Your task to perform on an android device: delete the emails in spam in the gmail app Image 0: 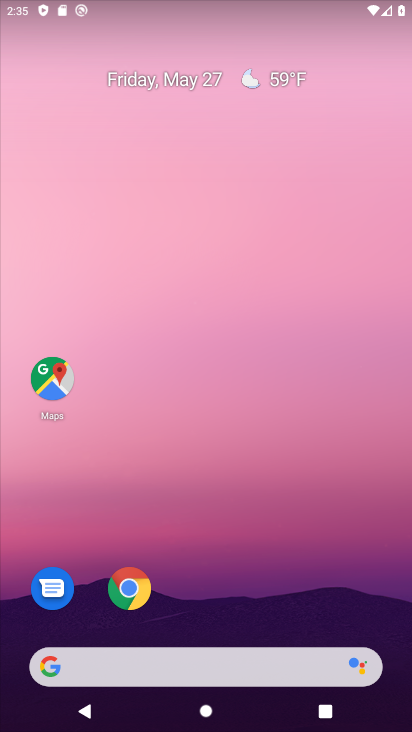
Step 0: drag from (255, 625) to (221, 491)
Your task to perform on an android device: delete the emails in spam in the gmail app Image 1: 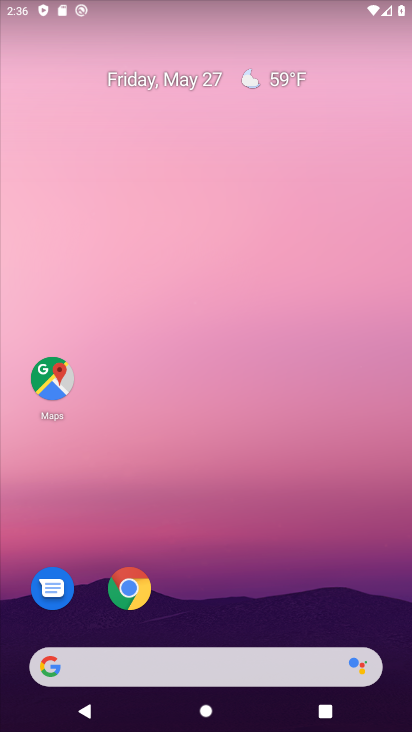
Step 1: drag from (306, 659) to (160, 256)
Your task to perform on an android device: delete the emails in spam in the gmail app Image 2: 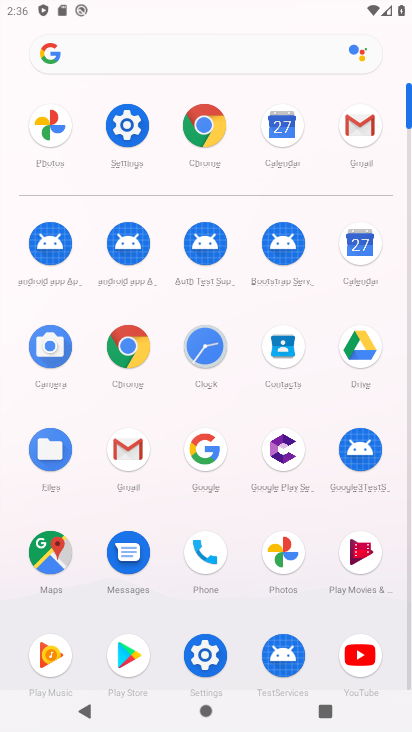
Step 2: click (126, 456)
Your task to perform on an android device: delete the emails in spam in the gmail app Image 3: 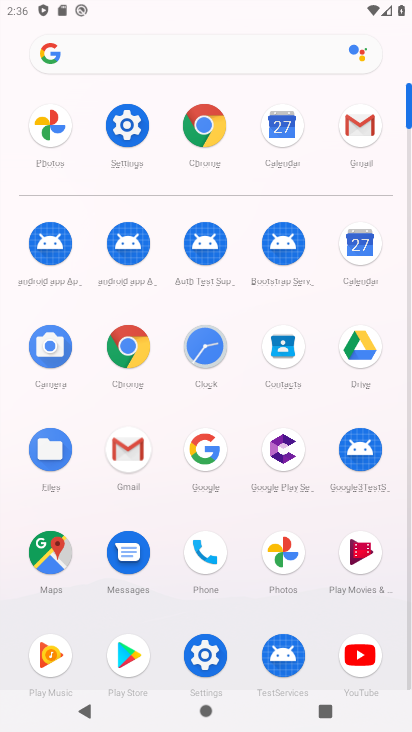
Step 3: click (127, 455)
Your task to perform on an android device: delete the emails in spam in the gmail app Image 4: 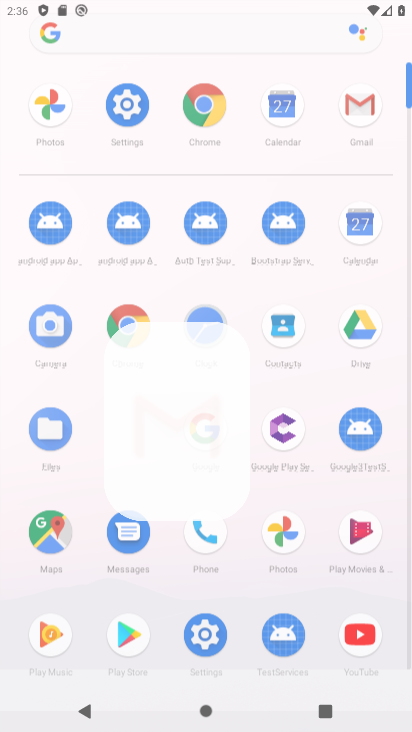
Step 4: click (127, 455)
Your task to perform on an android device: delete the emails in spam in the gmail app Image 5: 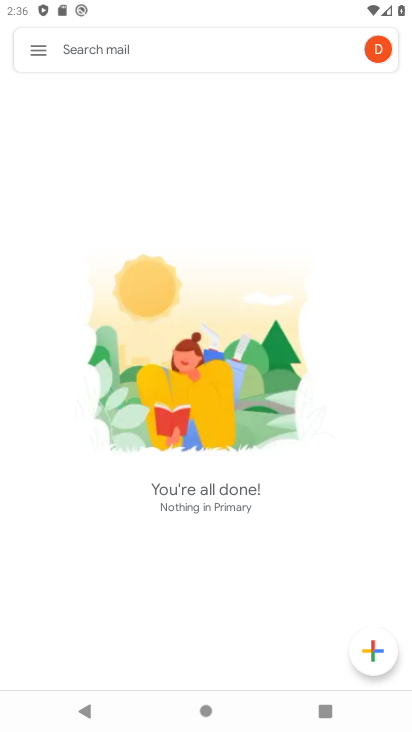
Step 5: click (140, 442)
Your task to perform on an android device: delete the emails in spam in the gmail app Image 6: 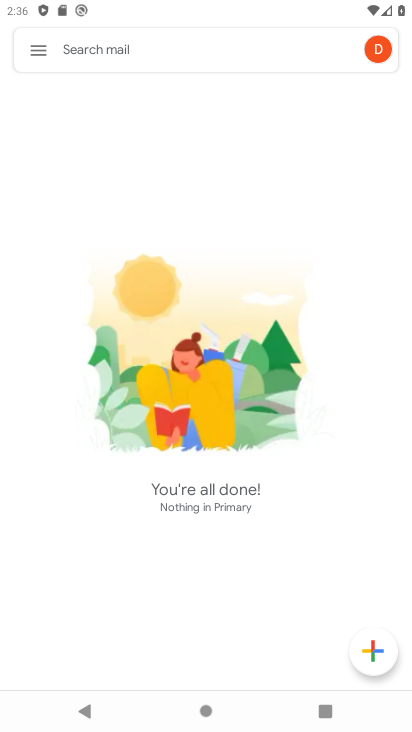
Step 6: click (32, 61)
Your task to perform on an android device: delete the emails in spam in the gmail app Image 7: 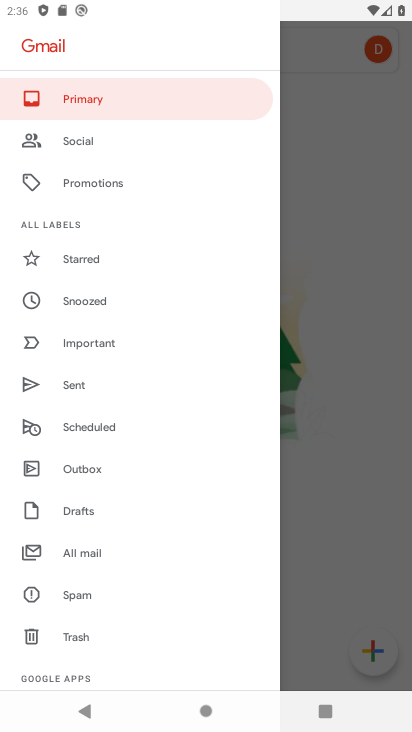
Step 7: drag from (74, 527) to (72, 284)
Your task to perform on an android device: delete the emails in spam in the gmail app Image 8: 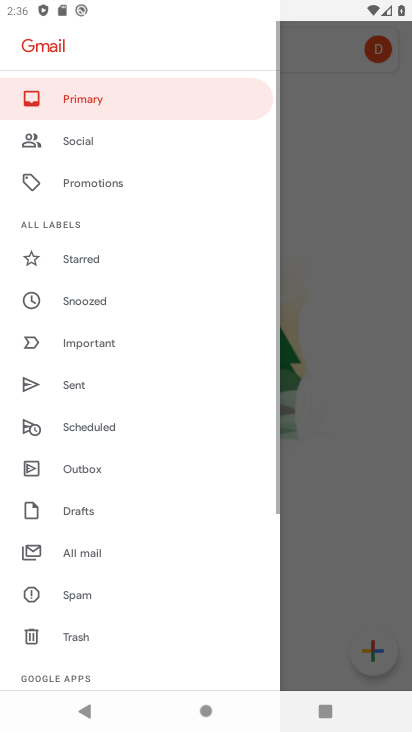
Step 8: drag from (84, 489) to (84, 177)
Your task to perform on an android device: delete the emails in spam in the gmail app Image 9: 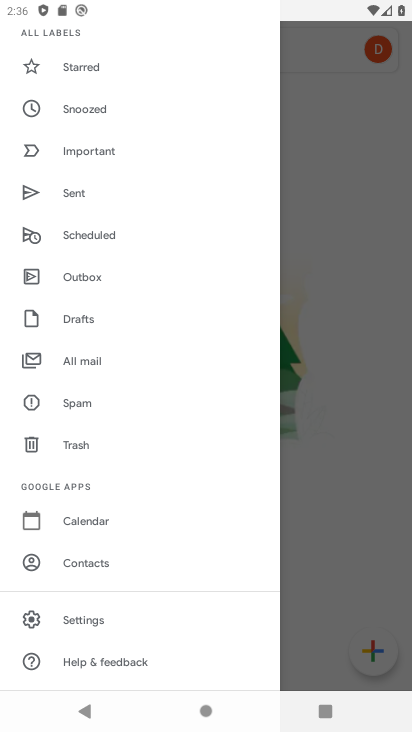
Step 9: click (71, 400)
Your task to perform on an android device: delete the emails in spam in the gmail app Image 10: 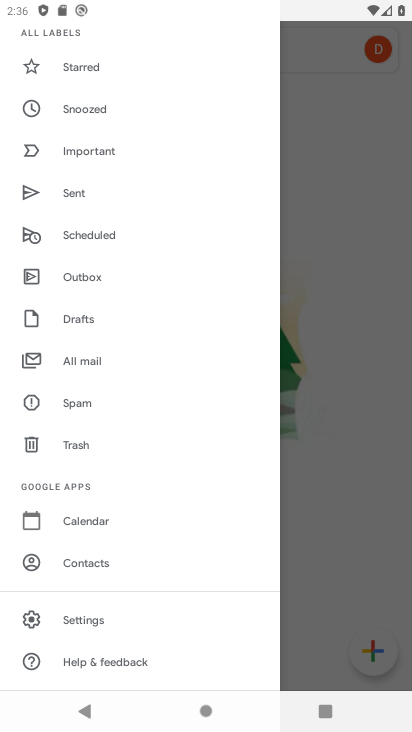
Step 10: click (71, 400)
Your task to perform on an android device: delete the emails in spam in the gmail app Image 11: 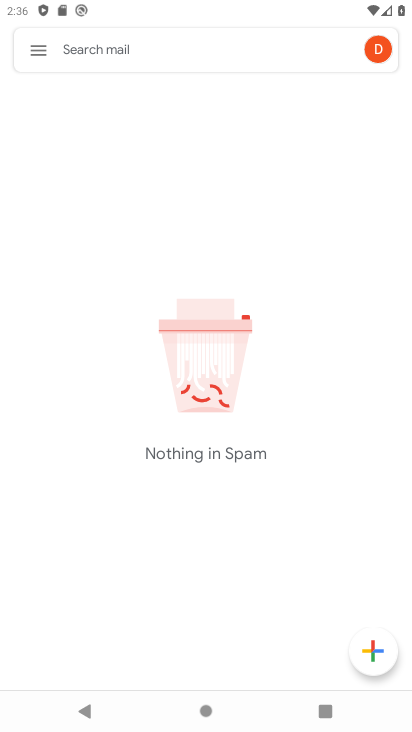
Step 11: task complete